Your task to perform on an android device: turn on location history Image 0: 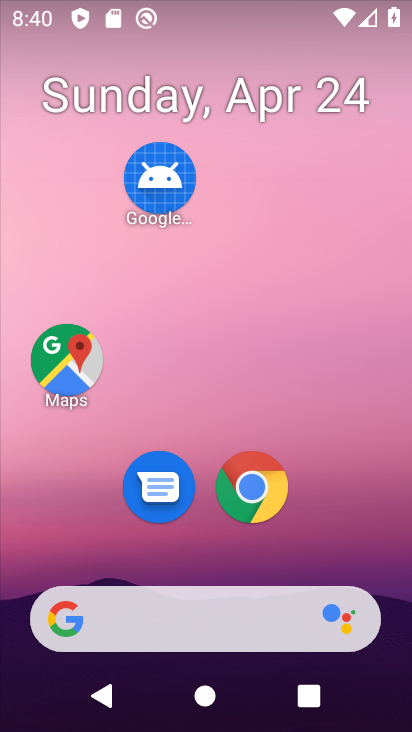
Step 0: drag from (353, 463) to (326, 107)
Your task to perform on an android device: turn on location history Image 1: 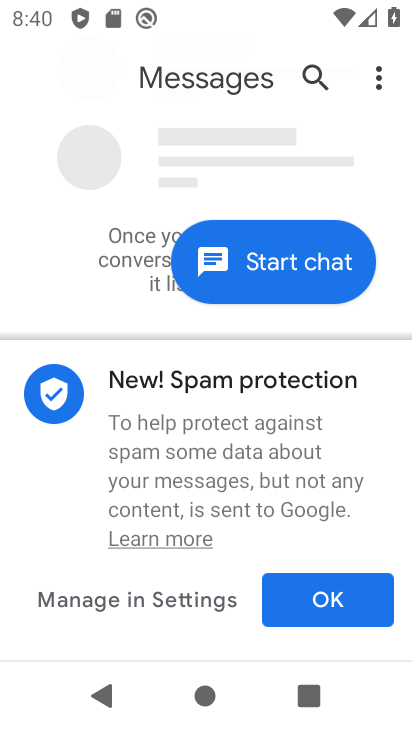
Step 1: press home button
Your task to perform on an android device: turn on location history Image 2: 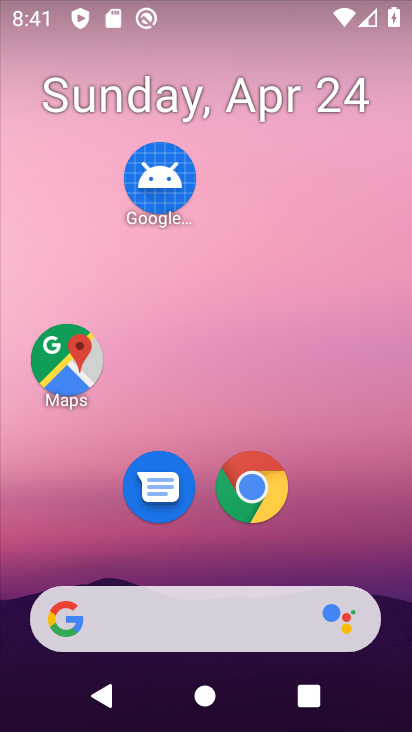
Step 2: drag from (320, 506) to (328, 169)
Your task to perform on an android device: turn on location history Image 3: 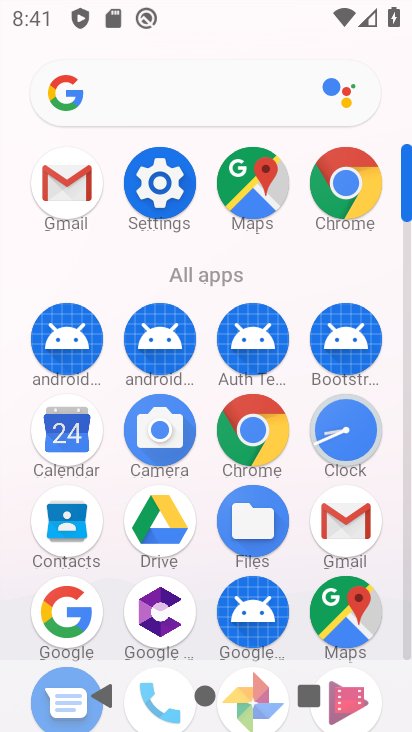
Step 3: click (159, 183)
Your task to perform on an android device: turn on location history Image 4: 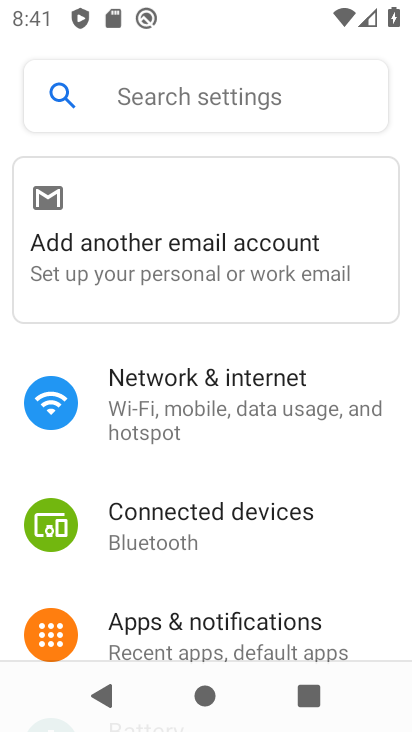
Step 4: drag from (275, 490) to (283, 109)
Your task to perform on an android device: turn on location history Image 5: 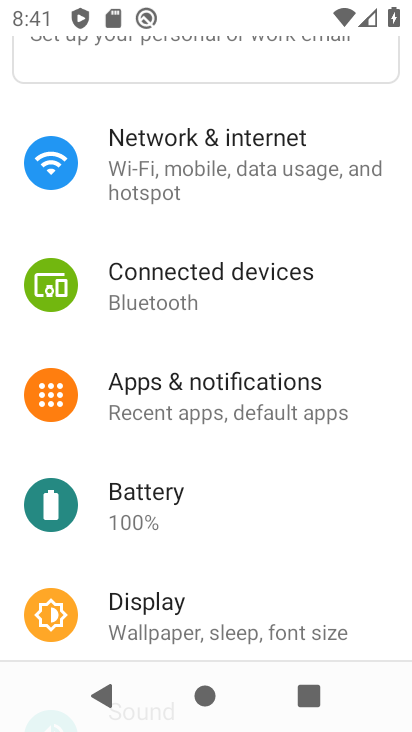
Step 5: drag from (224, 591) to (252, 91)
Your task to perform on an android device: turn on location history Image 6: 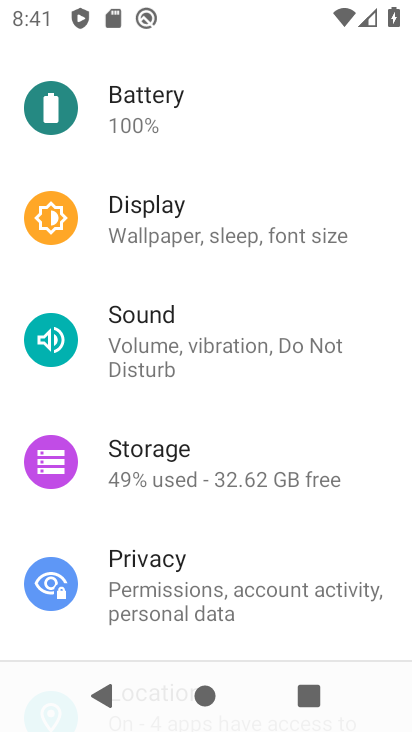
Step 6: drag from (201, 606) to (224, 206)
Your task to perform on an android device: turn on location history Image 7: 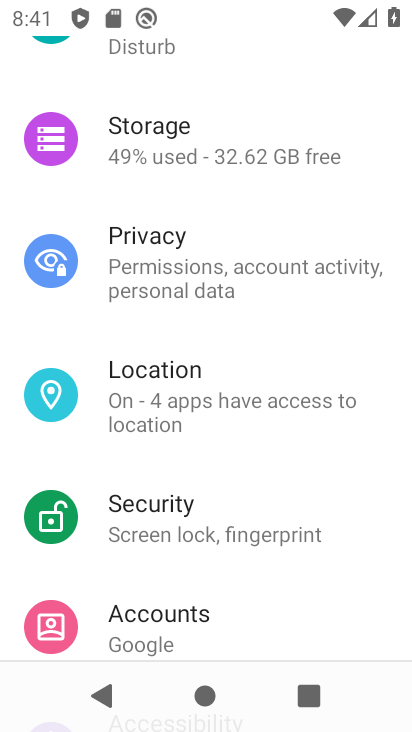
Step 7: click (167, 386)
Your task to perform on an android device: turn on location history Image 8: 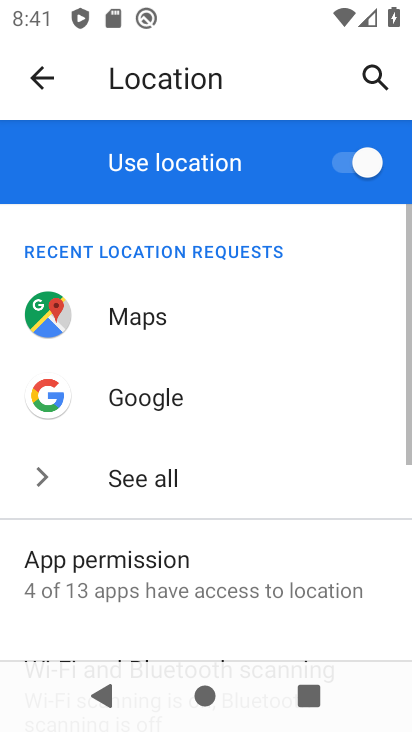
Step 8: drag from (168, 618) to (200, 305)
Your task to perform on an android device: turn on location history Image 9: 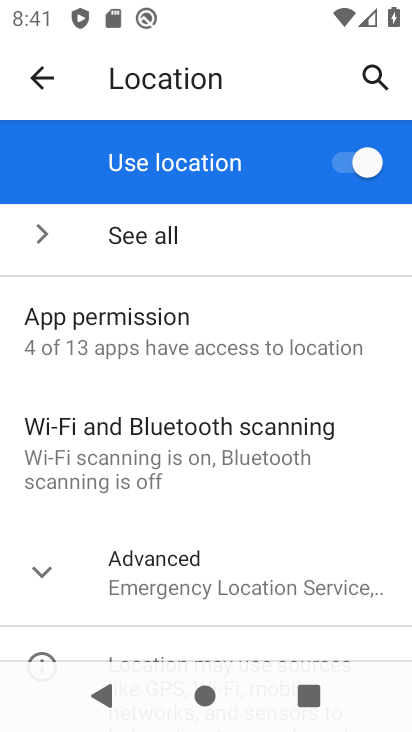
Step 9: click (216, 574)
Your task to perform on an android device: turn on location history Image 10: 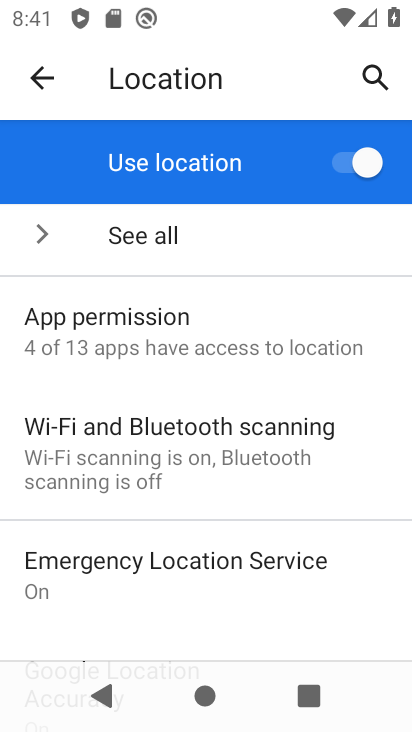
Step 10: task complete